Your task to perform on an android device: Show me recent news Image 0: 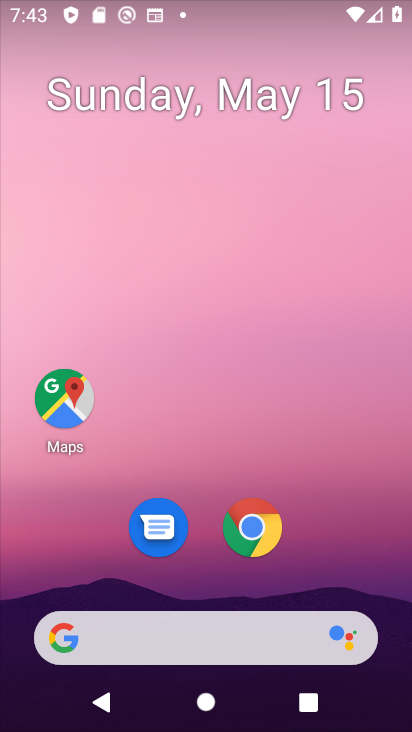
Step 0: click (72, 643)
Your task to perform on an android device: Show me recent news Image 1: 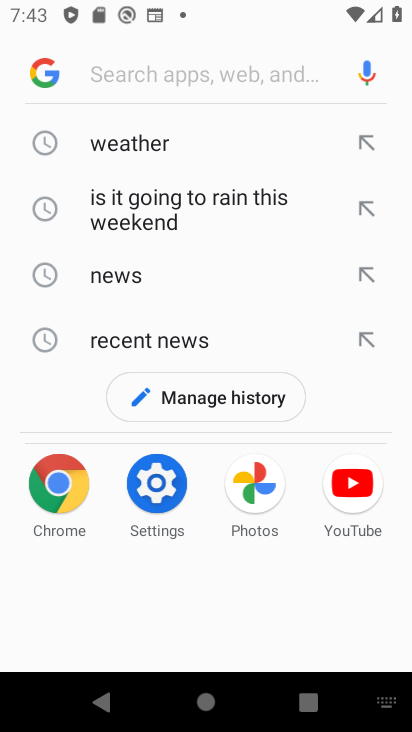
Step 1: click (145, 274)
Your task to perform on an android device: Show me recent news Image 2: 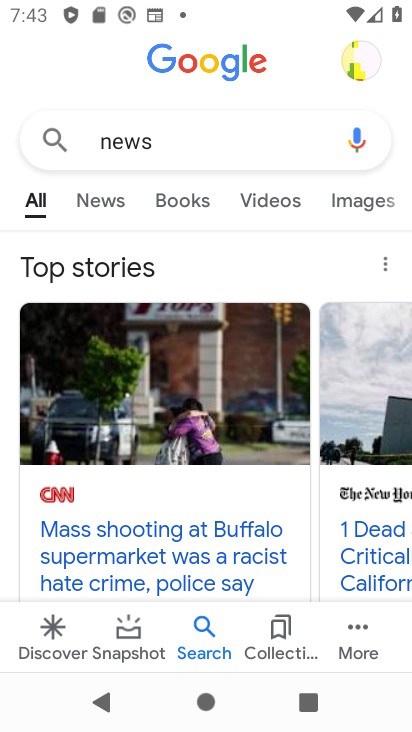
Step 2: click (113, 204)
Your task to perform on an android device: Show me recent news Image 3: 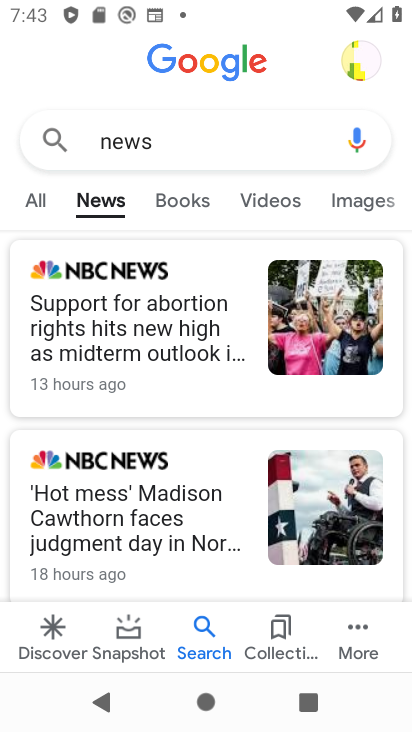
Step 3: task complete